Your task to perform on an android device: set the timer Image 0: 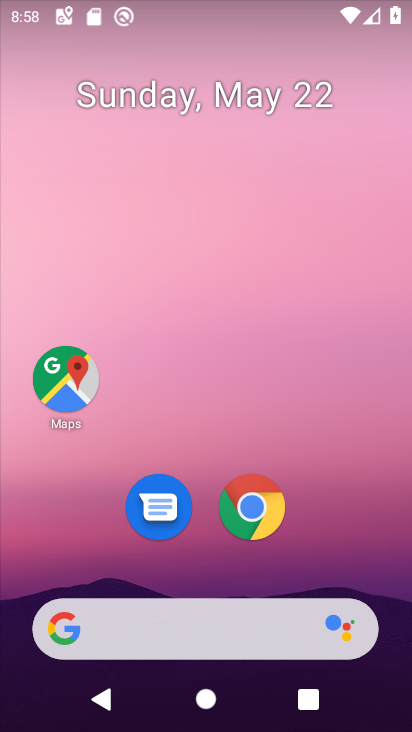
Step 0: drag from (198, 587) to (314, 28)
Your task to perform on an android device: set the timer Image 1: 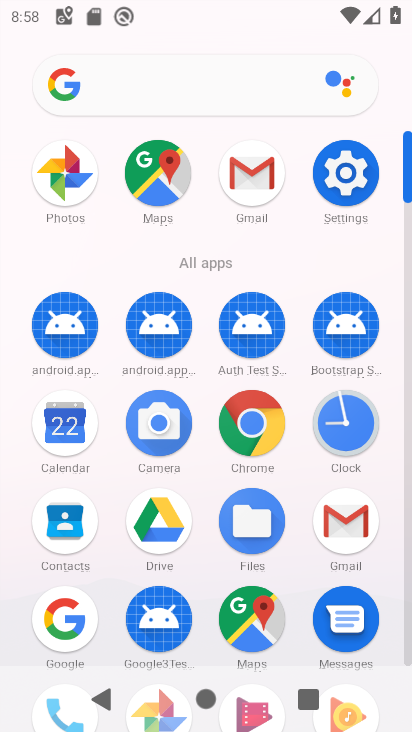
Step 1: click (353, 429)
Your task to perform on an android device: set the timer Image 2: 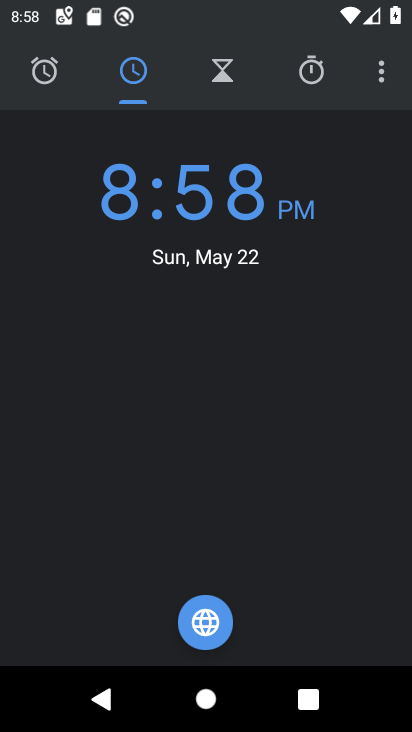
Step 2: click (214, 87)
Your task to perform on an android device: set the timer Image 3: 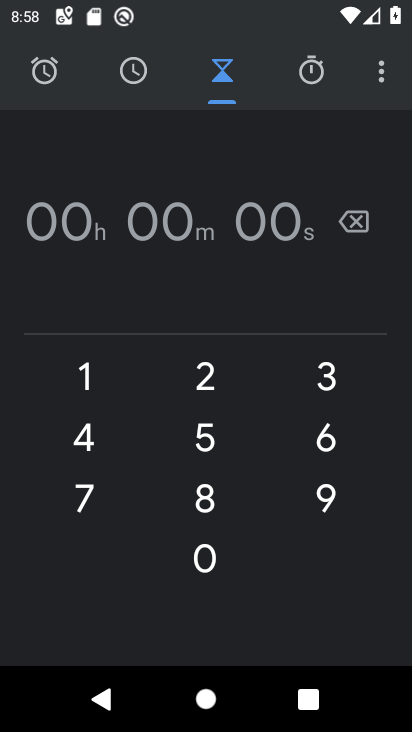
Step 3: click (216, 434)
Your task to perform on an android device: set the timer Image 4: 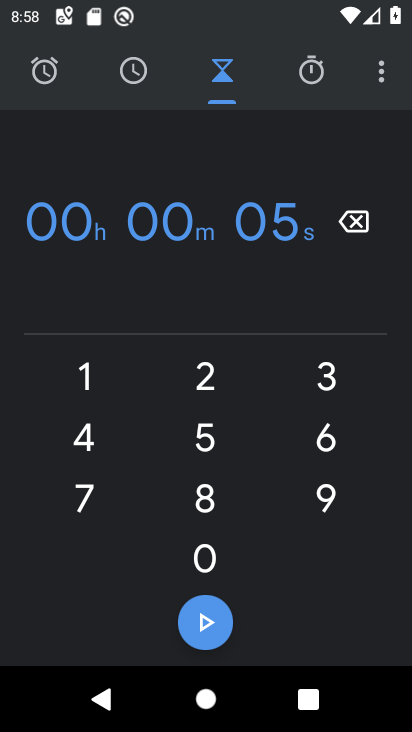
Step 4: click (193, 606)
Your task to perform on an android device: set the timer Image 5: 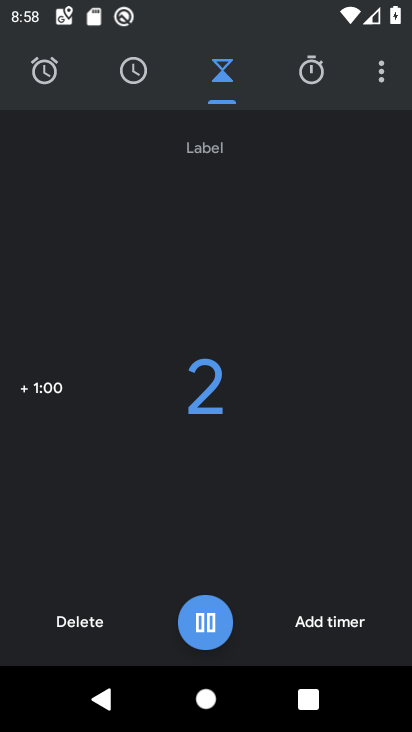
Step 5: task complete